Your task to perform on an android device: Search for pizza restaurants on Maps Image 0: 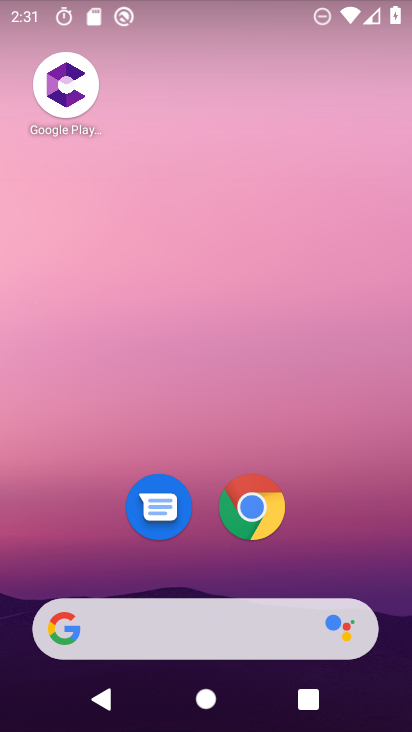
Step 0: drag from (217, 556) to (240, 126)
Your task to perform on an android device: Search for pizza restaurants on Maps Image 1: 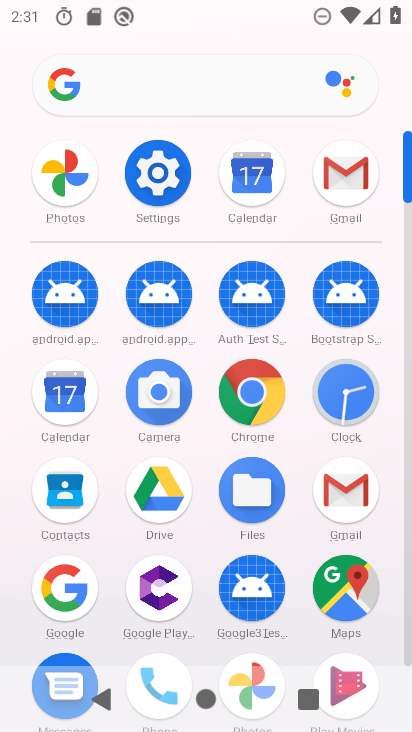
Step 1: drag from (200, 554) to (190, 430)
Your task to perform on an android device: Search for pizza restaurants on Maps Image 2: 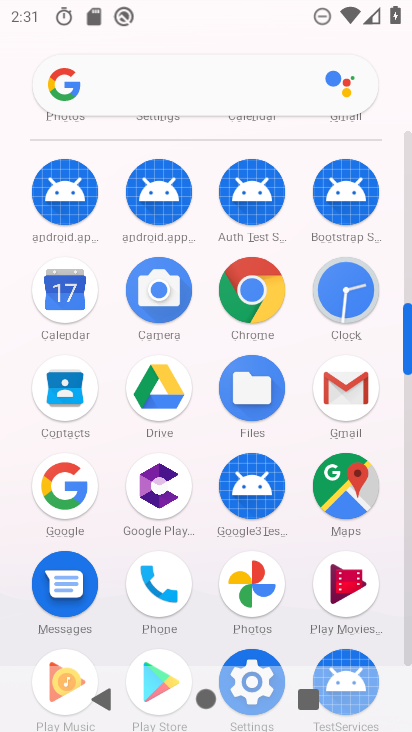
Step 2: click (345, 486)
Your task to perform on an android device: Search for pizza restaurants on Maps Image 3: 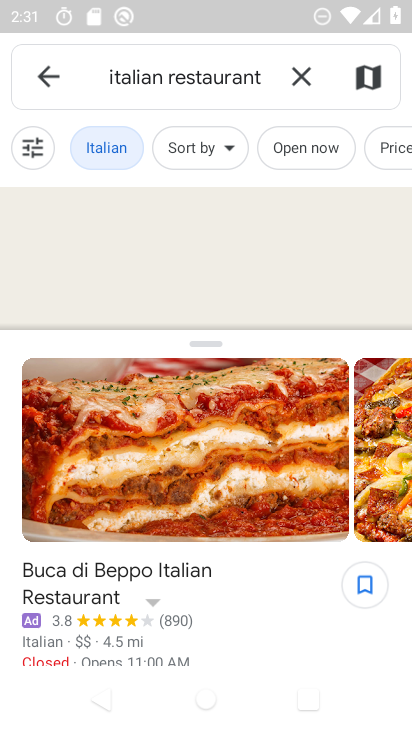
Step 3: click (295, 76)
Your task to perform on an android device: Search for pizza restaurants on Maps Image 4: 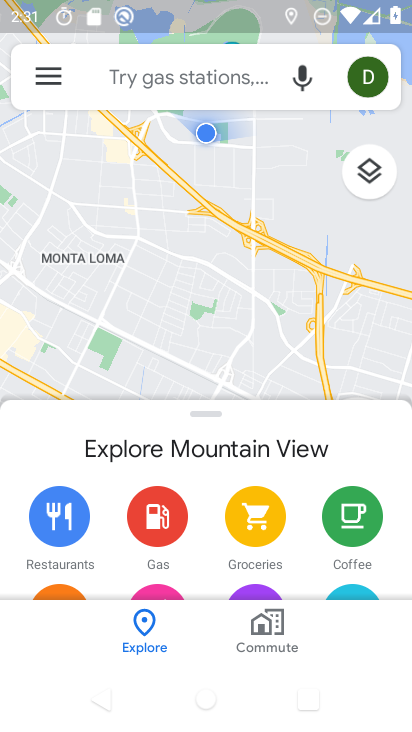
Step 4: click (168, 86)
Your task to perform on an android device: Search for pizza restaurants on Maps Image 5: 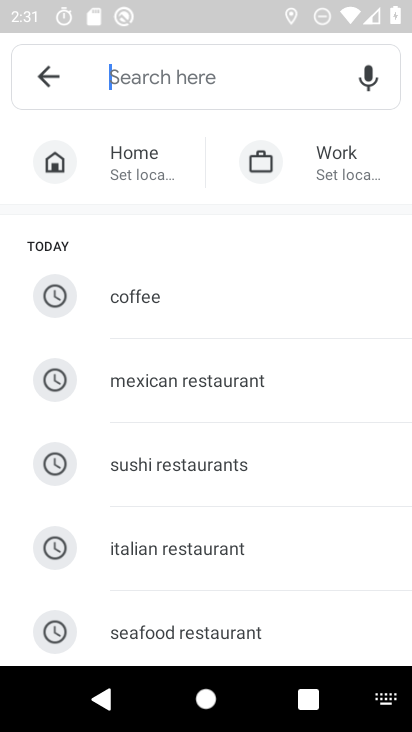
Step 5: drag from (185, 562) to (196, 339)
Your task to perform on an android device: Search for pizza restaurants on Maps Image 6: 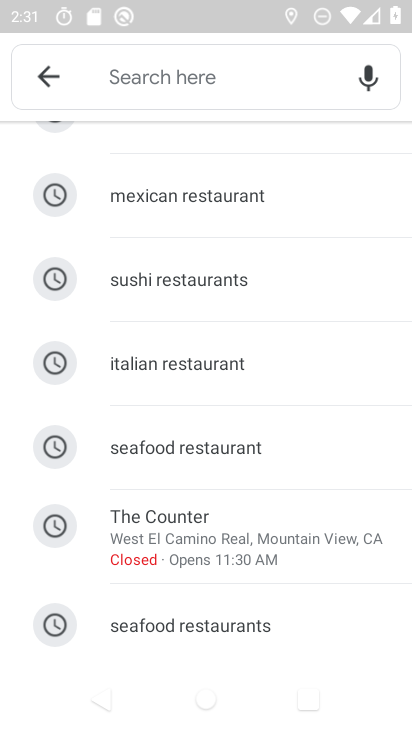
Step 6: click (160, 81)
Your task to perform on an android device: Search for pizza restaurants on Maps Image 7: 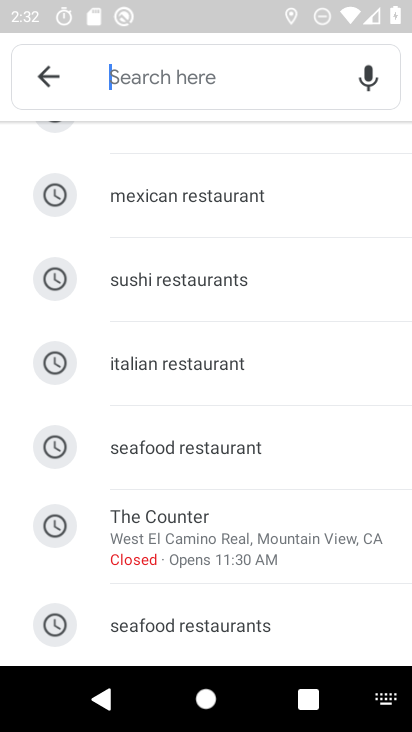
Step 7: type "pizza restaurent"
Your task to perform on an android device: Search for pizza restaurants on Maps Image 8: 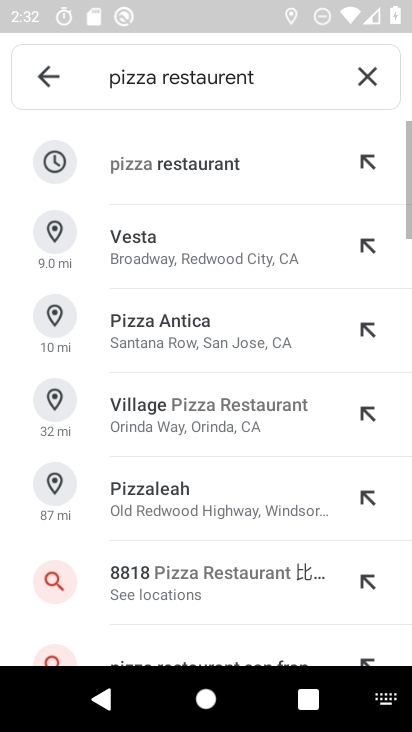
Step 8: click (182, 171)
Your task to perform on an android device: Search for pizza restaurants on Maps Image 9: 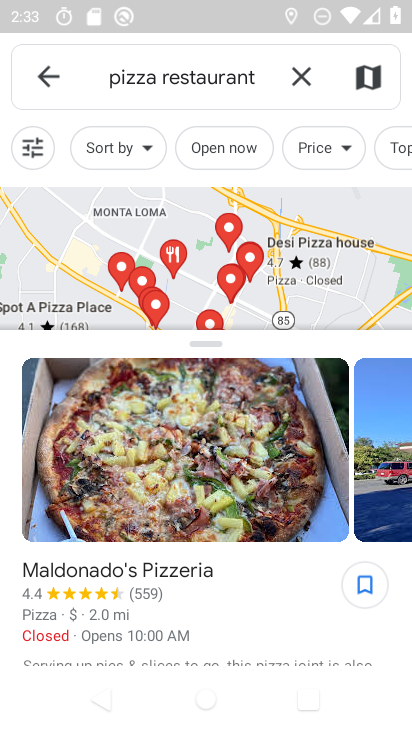
Step 9: task complete